Your task to perform on an android device: change your default location settings in chrome Image 0: 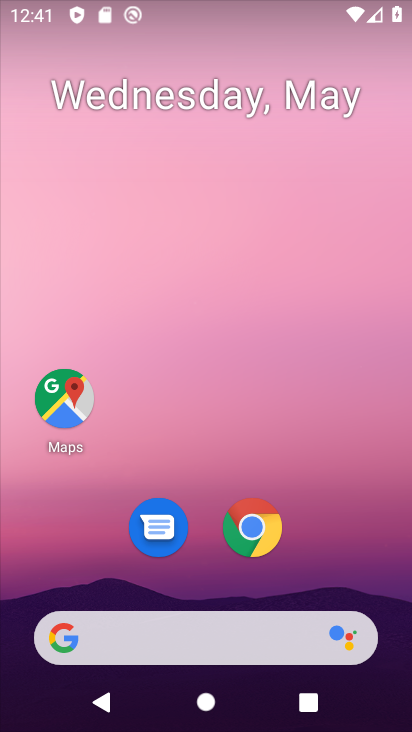
Step 0: drag from (204, 570) to (232, 101)
Your task to perform on an android device: change your default location settings in chrome Image 1: 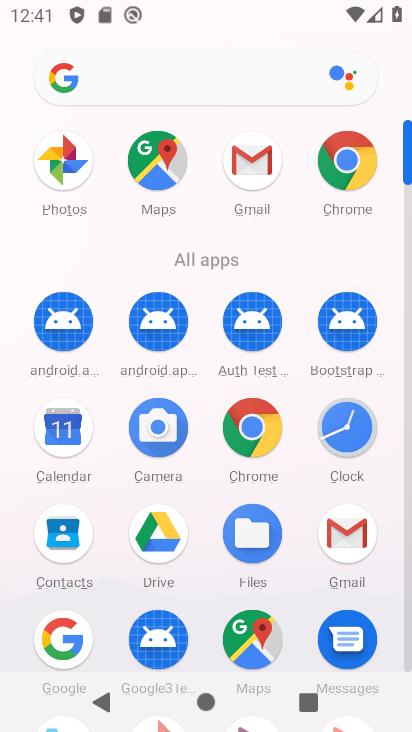
Step 1: click (326, 153)
Your task to perform on an android device: change your default location settings in chrome Image 2: 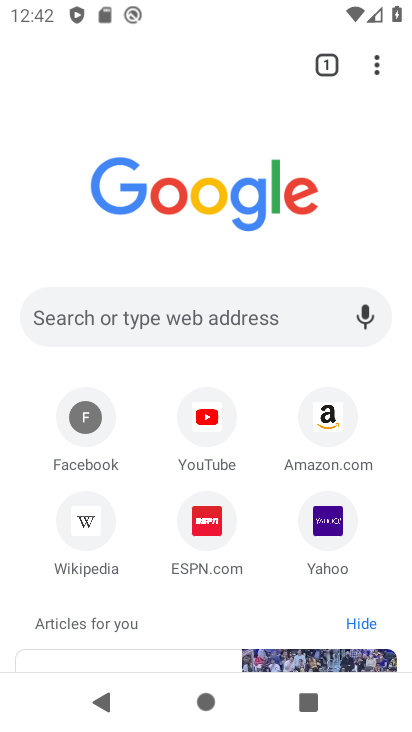
Step 2: click (382, 71)
Your task to perform on an android device: change your default location settings in chrome Image 3: 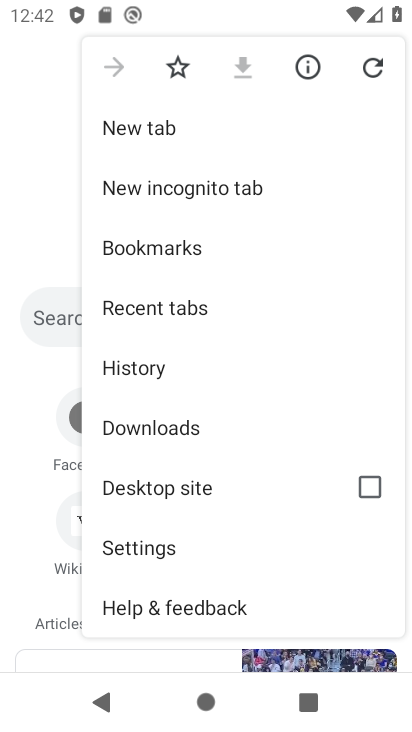
Step 3: click (156, 552)
Your task to perform on an android device: change your default location settings in chrome Image 4: 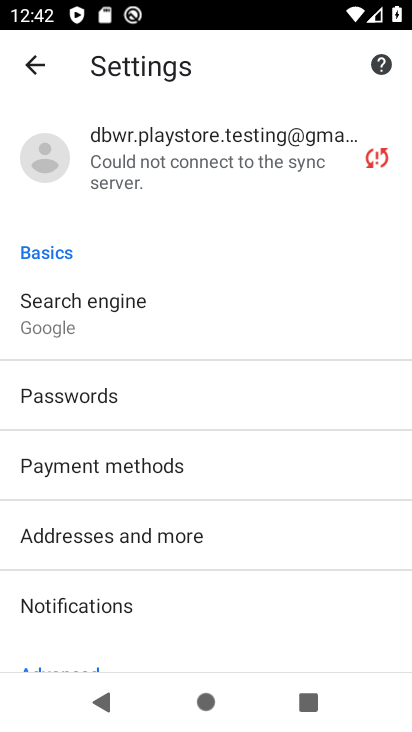
Step 4: drag from (159, 571) to (208, 229)
Your task to perform on an android device: change your default location settings in chrome Image 5: 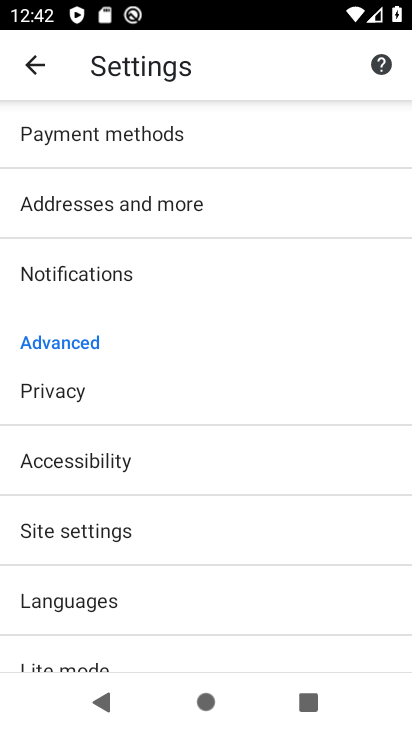
Step 5: drag from (132, 588) to (201, 231)
Your task to perform on an android device: change your default location settings in chrome Image 6: 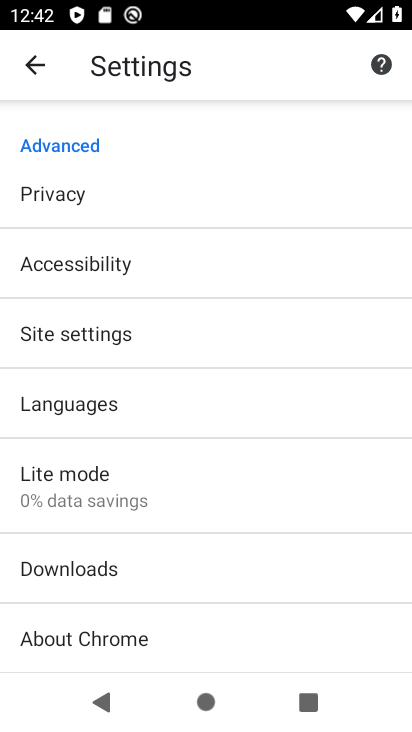
Step 6: click (171, 328)
Your task to perform on an android device: change your default location settings in chrome Image 7: 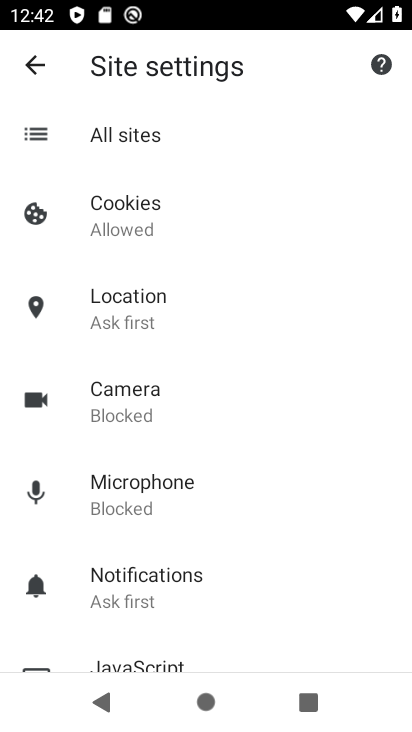
Step 7: drag from (207, 512) to (216, 401)
Your task to perform on an android device: change your default location settings in chrome Image 8: 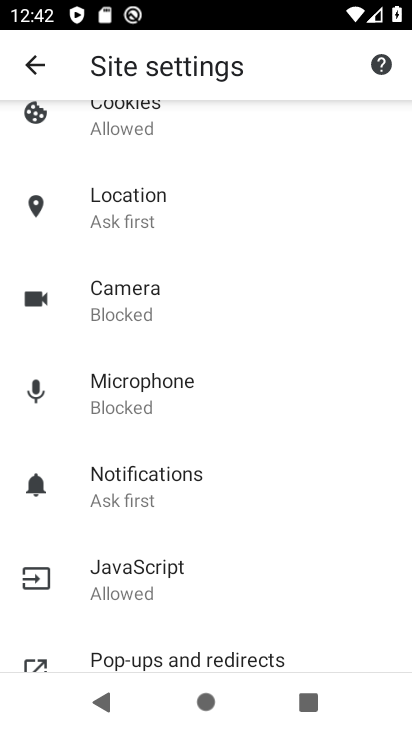
Step 8: click (158, 201)
Your task to perform on an android device: change your default location settings in chrome Image 9: 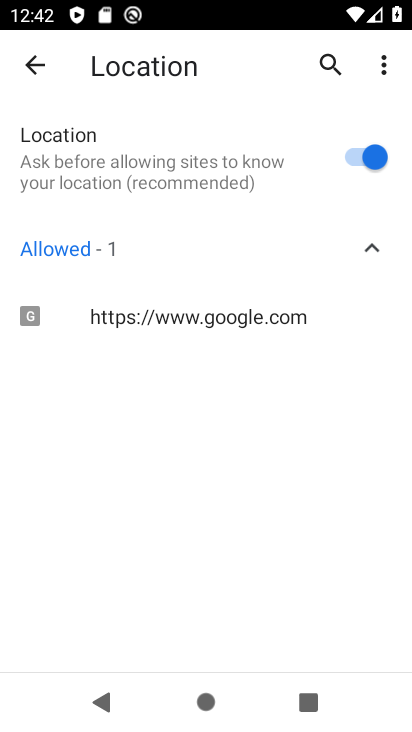
Step 9: click (370, 152)
Your task to perform on an android device: change your default location settings in chrome Image 10: 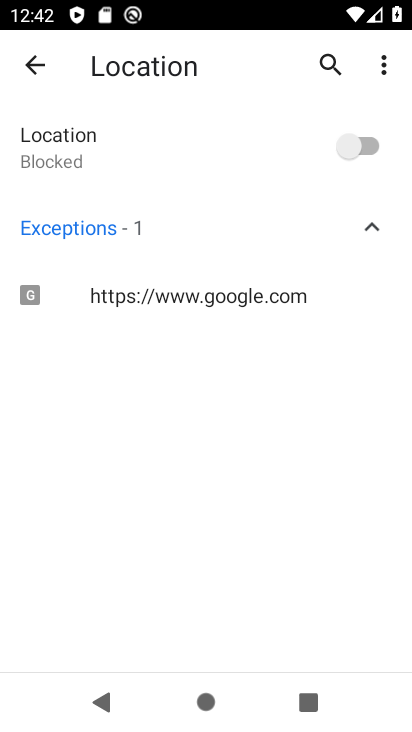
Step 10: task complete